Your task to perform on an android device: install app "Facebook Lite" Image 0: 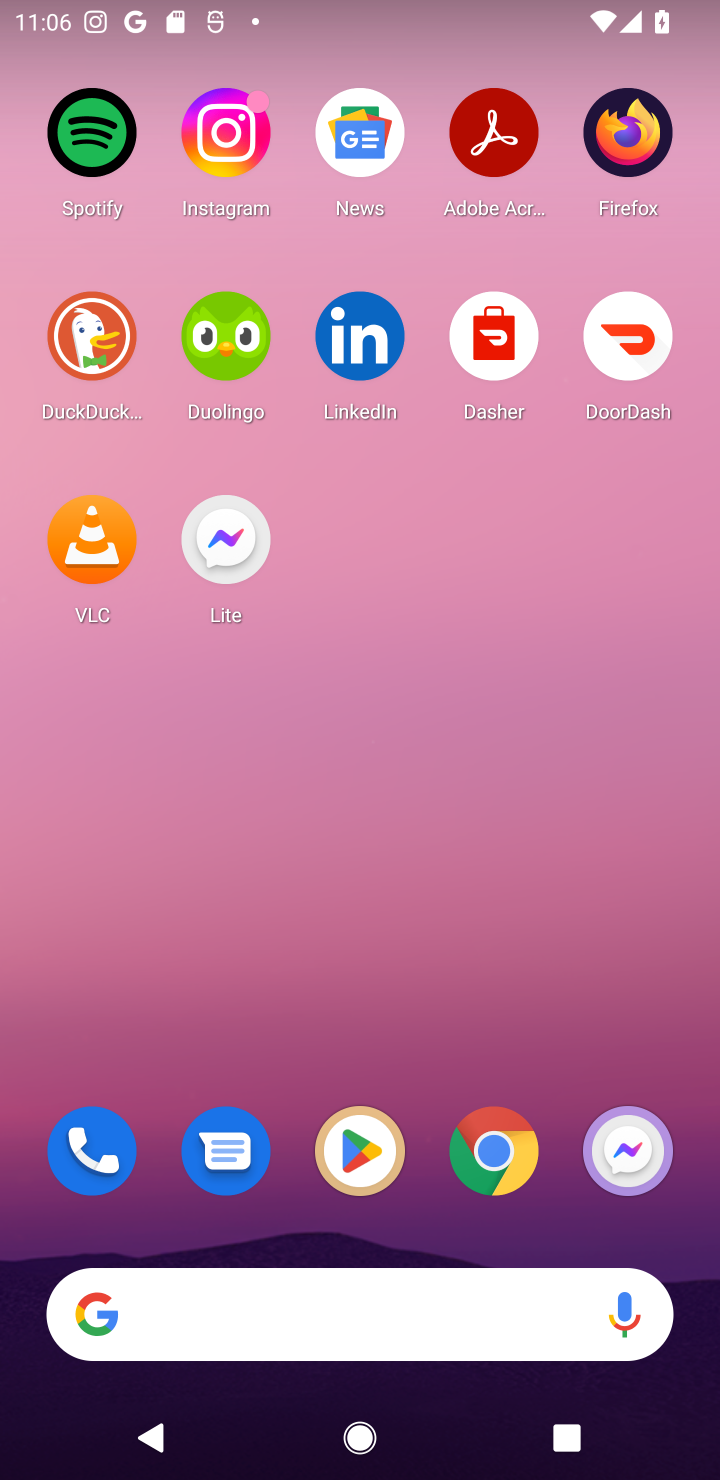
Step 0: drag from (444, 1028) to (34, 470)
Your task to perform on an android device: install app "Facebook Lite" Image 1: 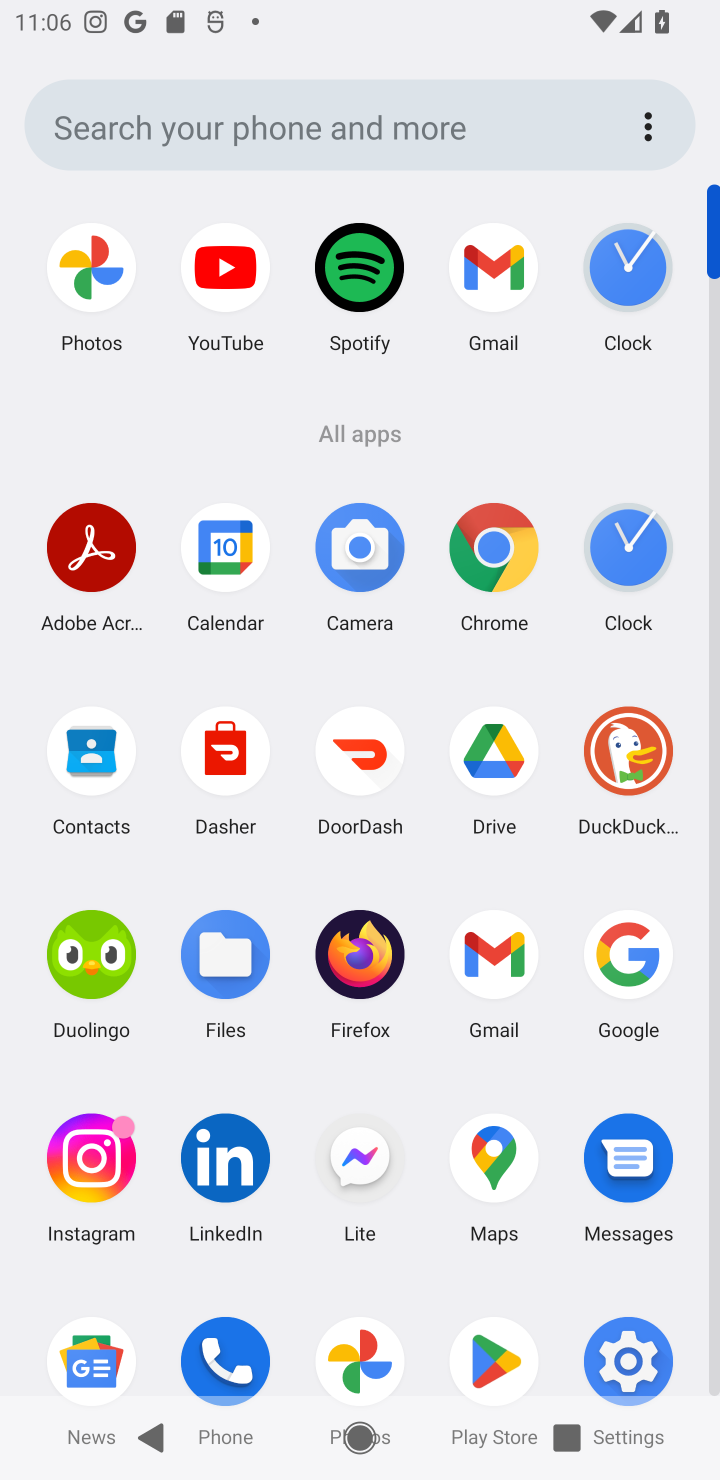
Step 1: click (479, 1363)
Your task to perform on an android device: install app "Facebook Lite" Image 2: 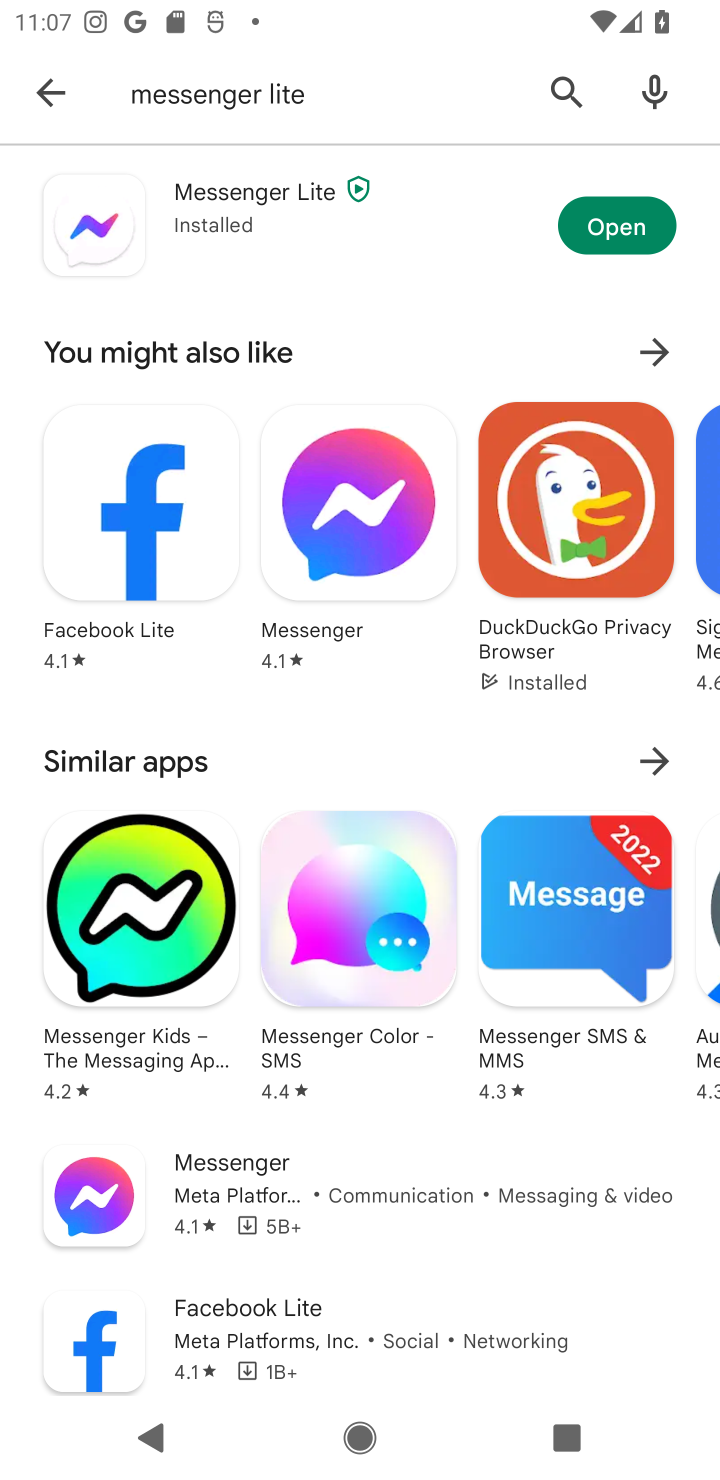
Step 2: click (123, 507)
Your task to perform on an android device: install app "Facebook Lite" Image 3: 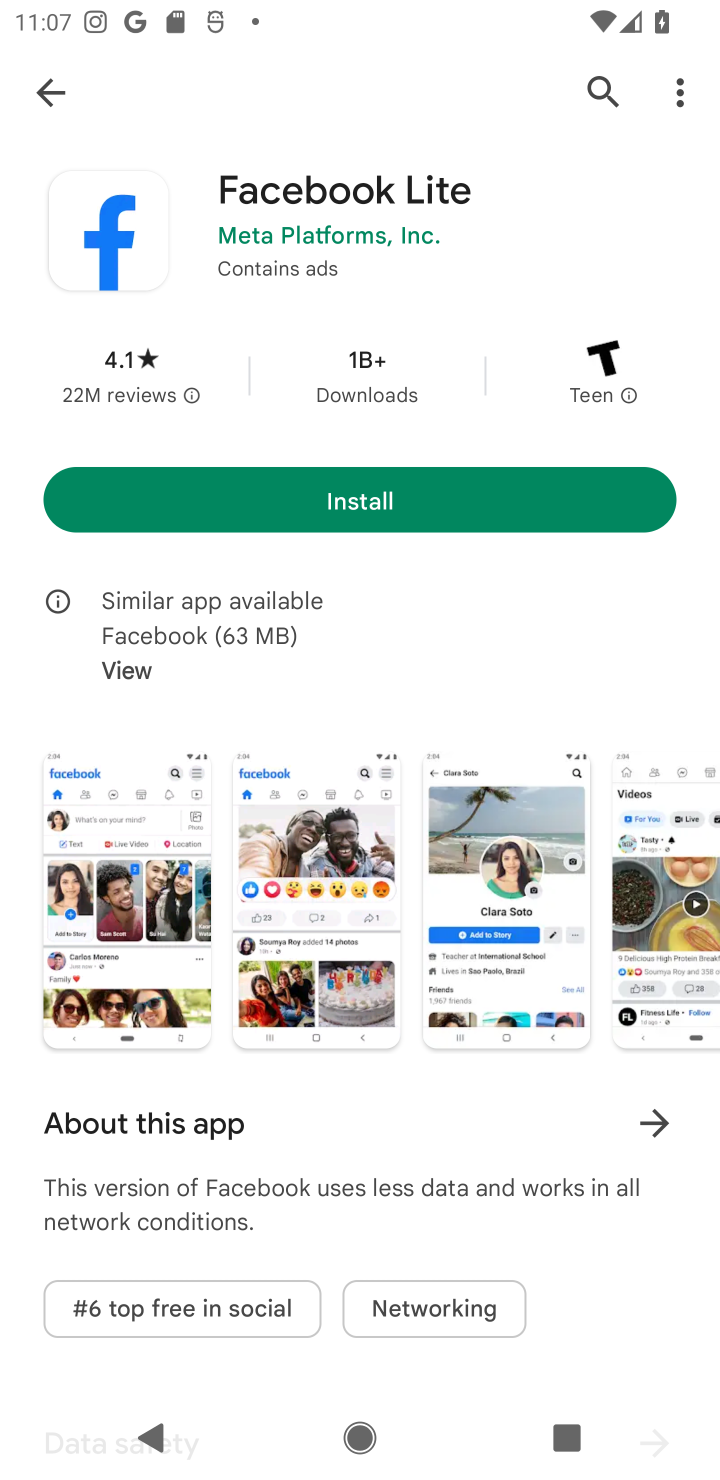
Step 3: click (350, 499)
Your task to perform on an android device: install app "Facebook Lite" Image 4: 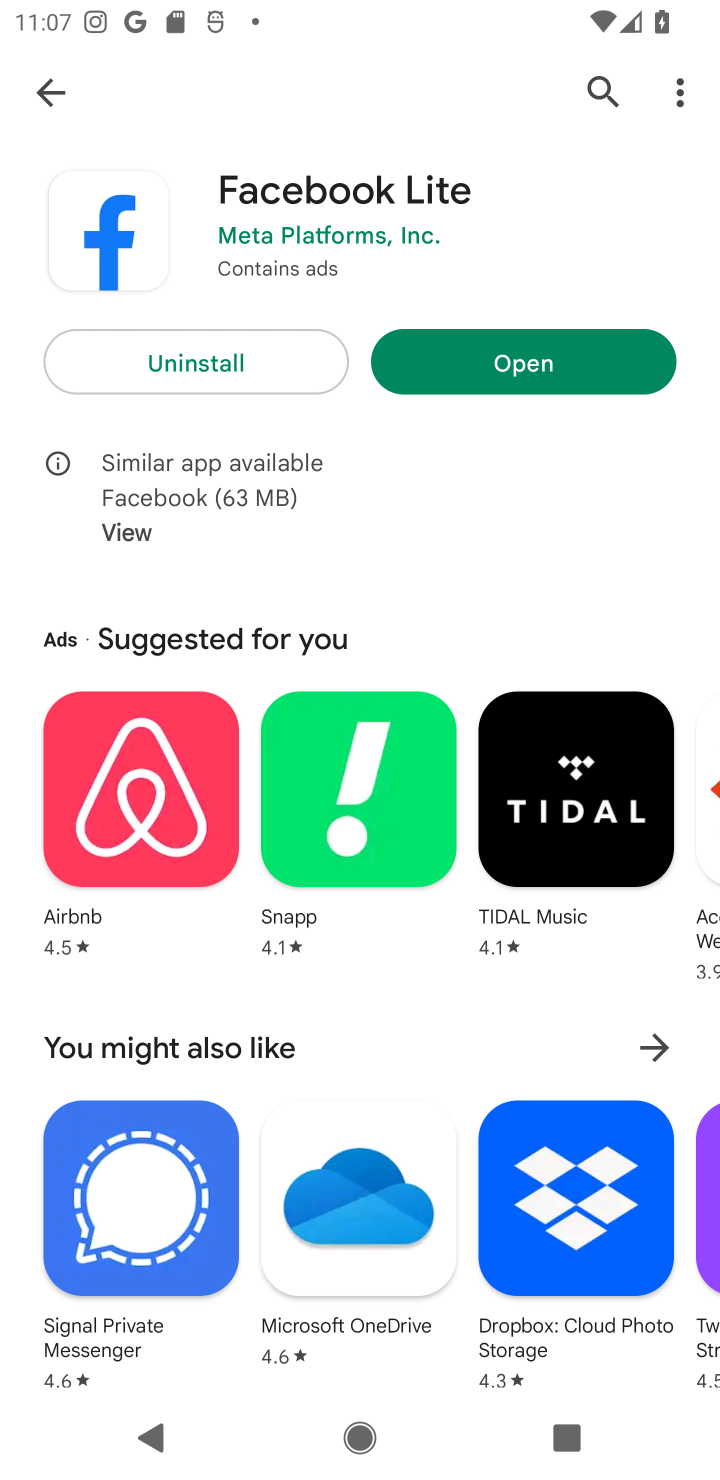
Step 4: click (453, 352)
Your task to perform on an android device: install app "Facebook Lite" Image 5: 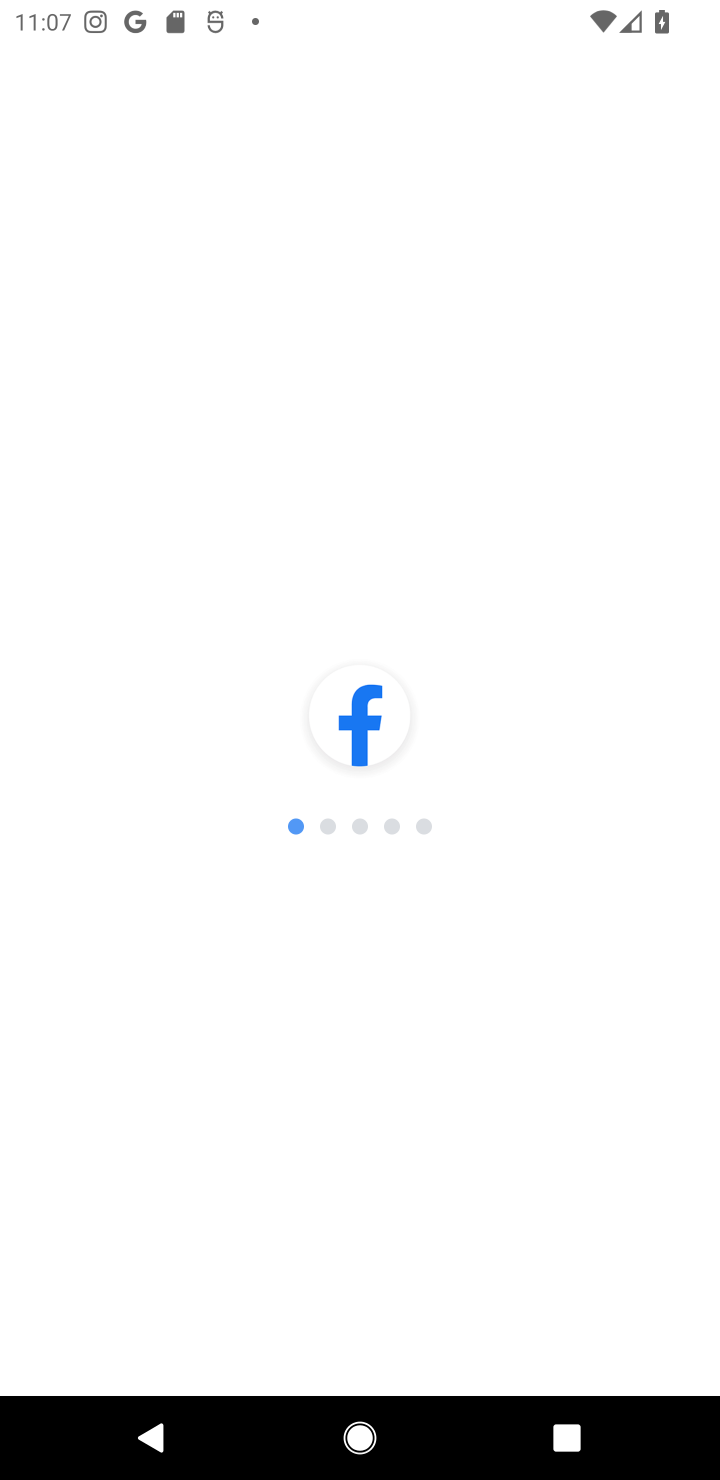
Step 5: task complete